Your task to perform on an android device: toggle pop-ups in chrome Image 0: 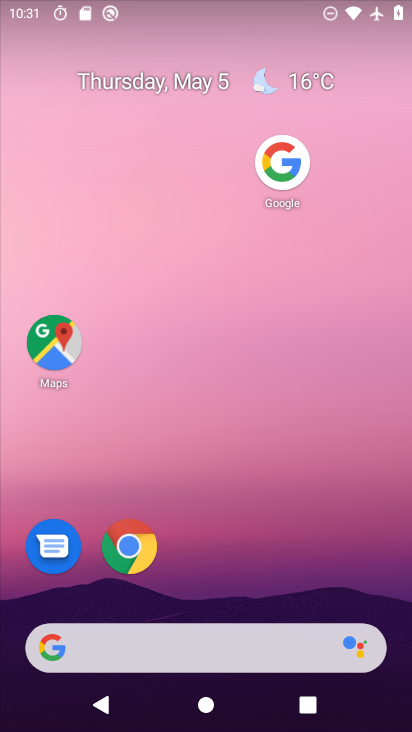
Step 0: drag from (161, 654) to (245, 203)
Your task to perform on an android device: toggle pop-ups in chrome Image 1: 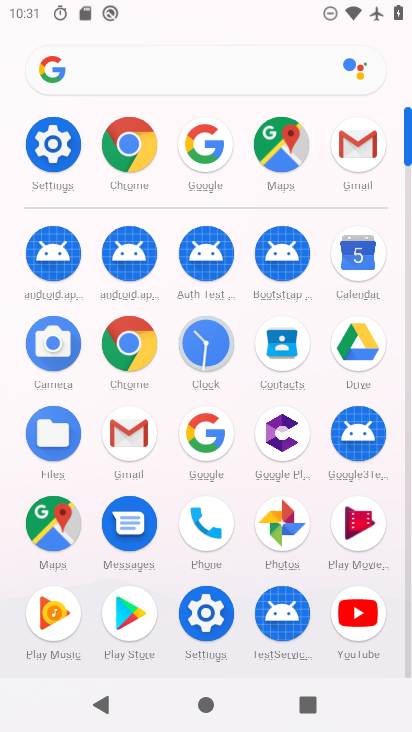
Step 1: click (120, 156)
Your task to perform on an android device: toggle pop-ups in chrome Image 2: 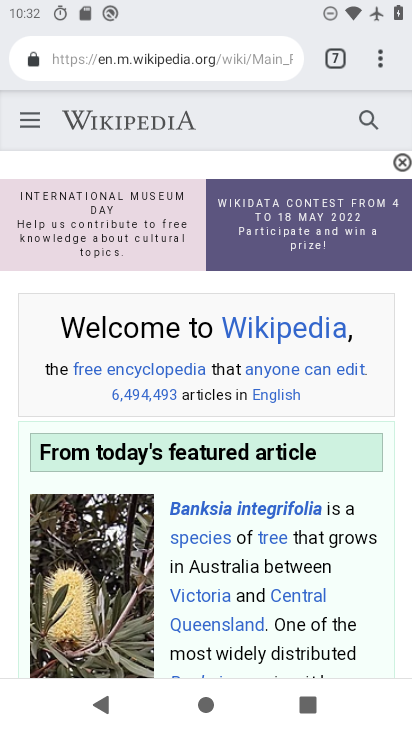
Step 2: click (375, 63)
Your task to perform on an android device: toggle pop-ups in chrome Image 3: 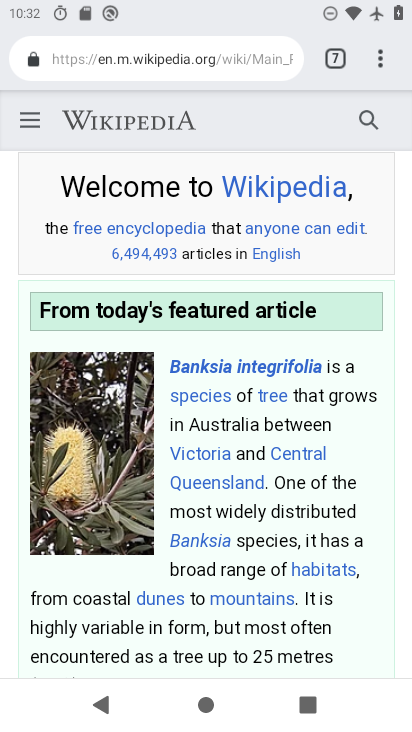
Step 3: drag from (378, 65) to (234, 564)
Your task to perform on an android device: toggle pop-ups in chrome Image 4: 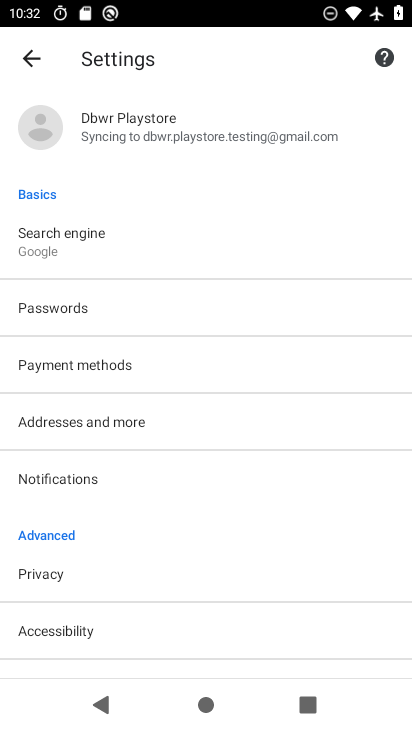
Step 4: drag from (169, 630) to (229, 371)
Your task to perform on an android device: toggle pop-ups in chrome Image 5: 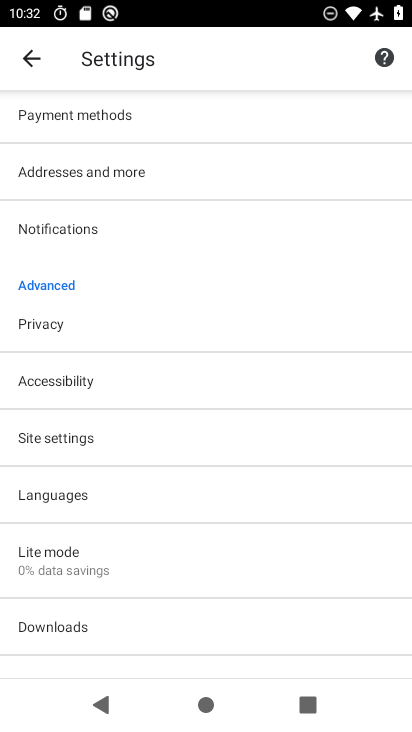
Step 5: click (122, 442)
Your task to perform on an android device: toggle pop-ups in chrome Image 6: 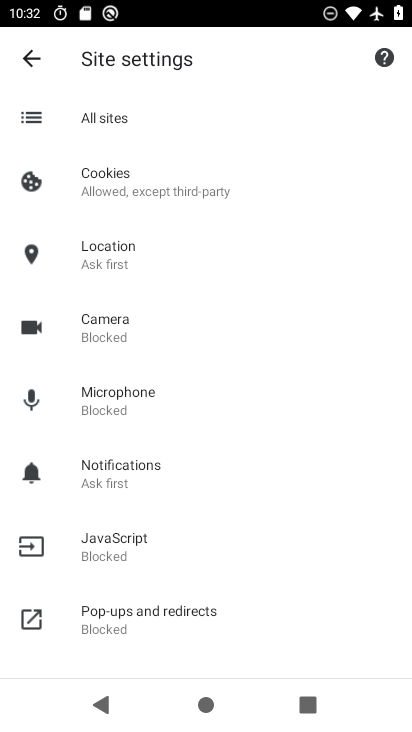
Step 6: click (150, 615)
Your task to perform on an android device: toggle pop-ups in chrome Image 7: 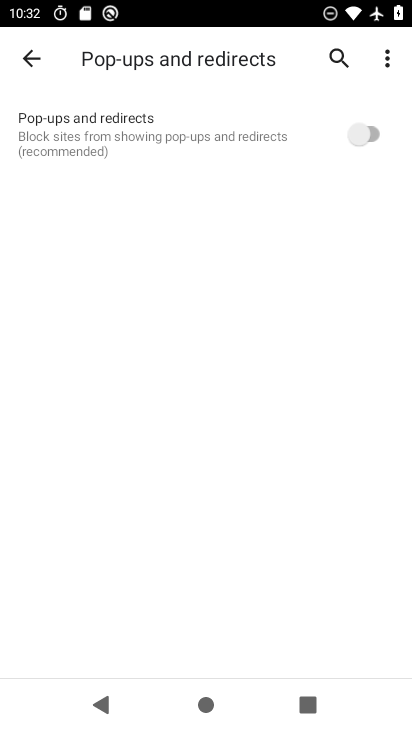
Step 7: click (377, 131)
Your task to perform on an android device: toggle pop-ups in chrome Image 8: 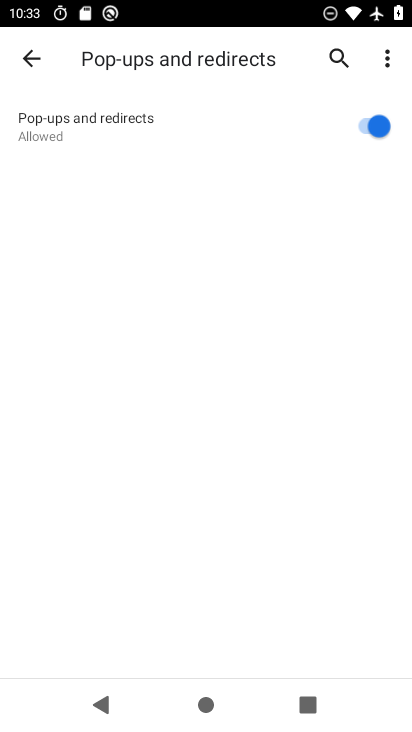
Step 8: task complete